Your task to perform on an android device: Go to display settings Image 0: 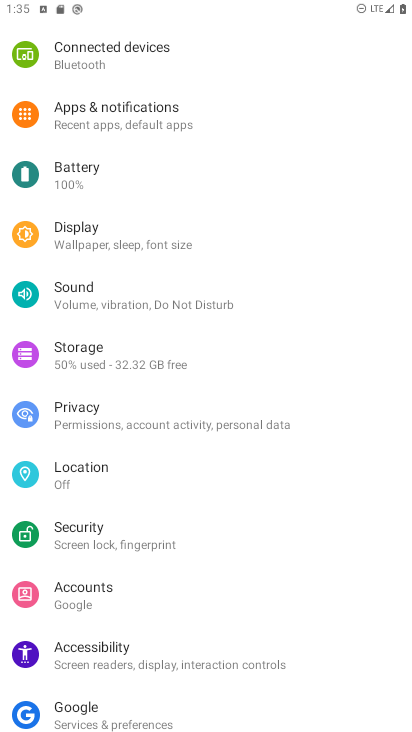
Step 0: click (193, 217)
Your task to perform on an android device: Go to display settings Image 1: 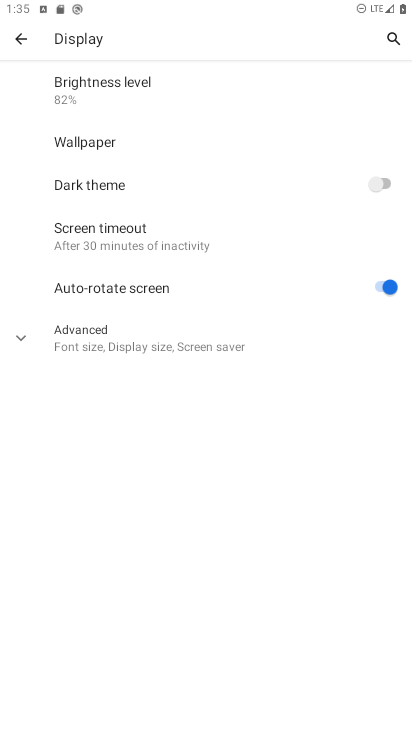
Step 1: task complete